Your task to perform on an android device: change notification settings in the gmail app Image 0: 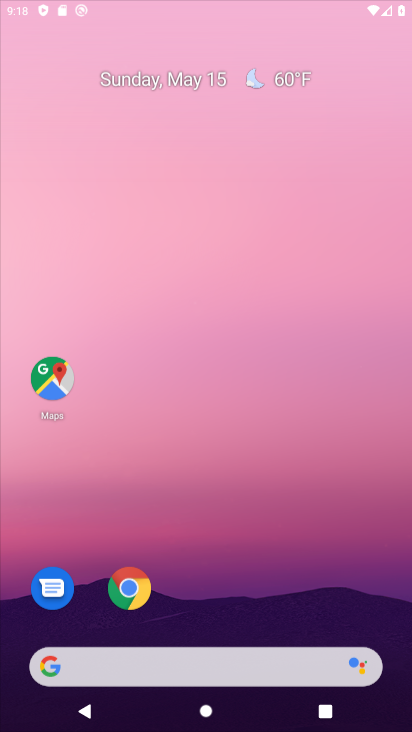
Step 0: drag from (207, 595) to (302, 29)
Your task to perform on an android device: change notification settings in the gmail app Image 1: 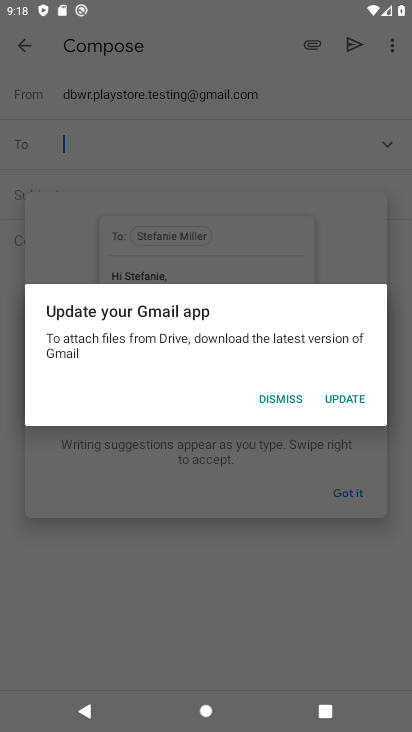
Step 1: press home button
Your task to perform on an android device: change notification settings in the gmail app Image 2: 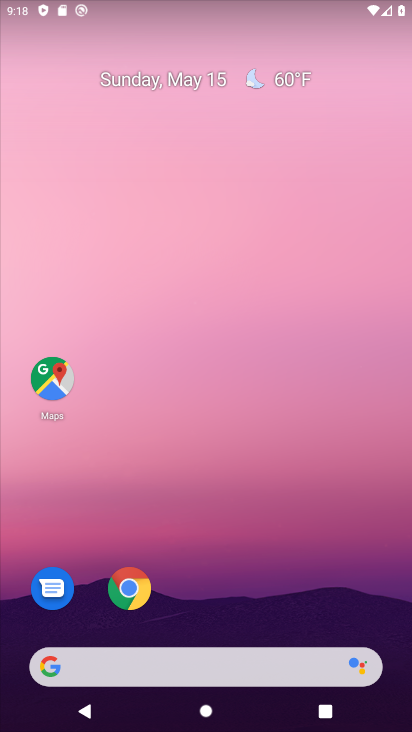
Step 2: drag from (233, 498) to (256, 16)
Your task to perform on an android device: change notification settings in the gmail app Image 3: 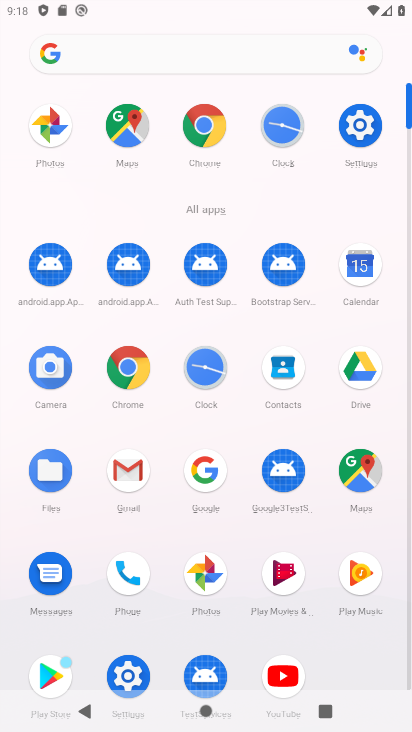
Step 3: click (127, 475)
Your task to perform on an android device: change notification settings in the gmail app Image 4: 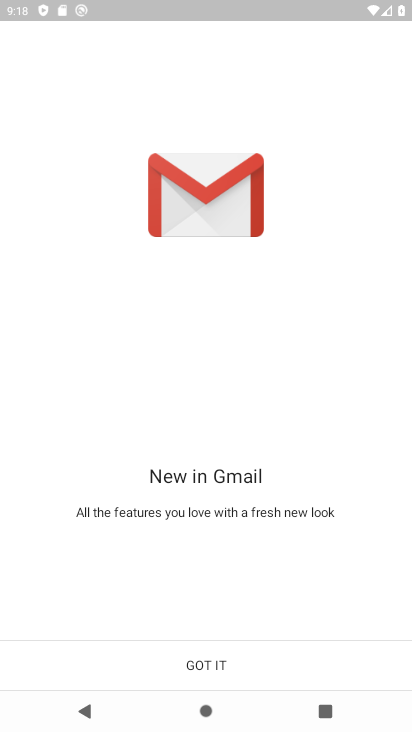
Step 4: click (232, 669)
Your task to perform on an android device: change notification settings in the gmail app Image 5: 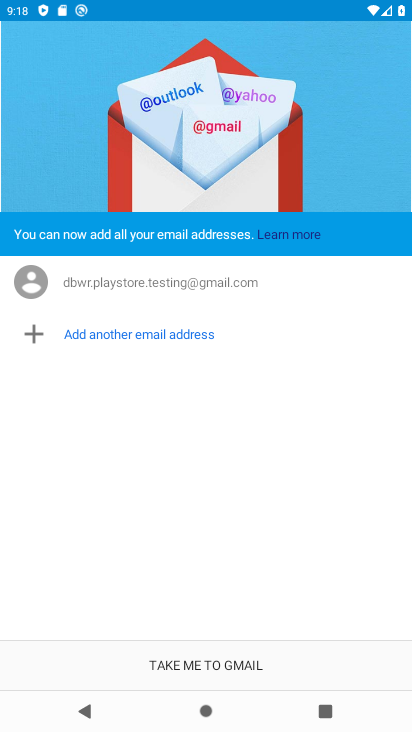
Step 5: click (233, 668)
Your task to perform on an android device: change notification settings in the gmail app Image 6: 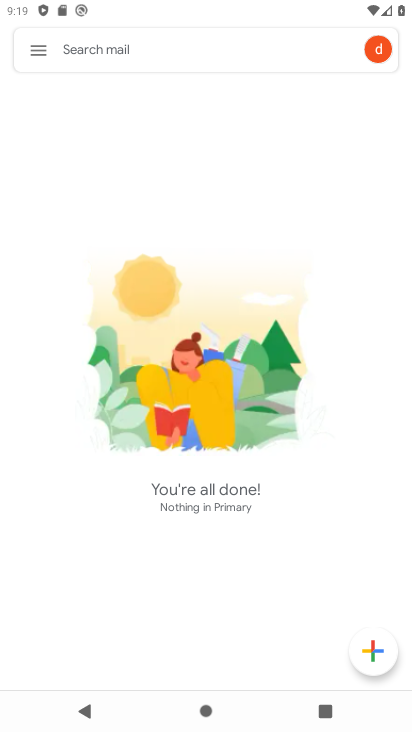
Step 6: click (26, 50)
Your task to perform on an android device: change notification settings in the gmail app Image 7: 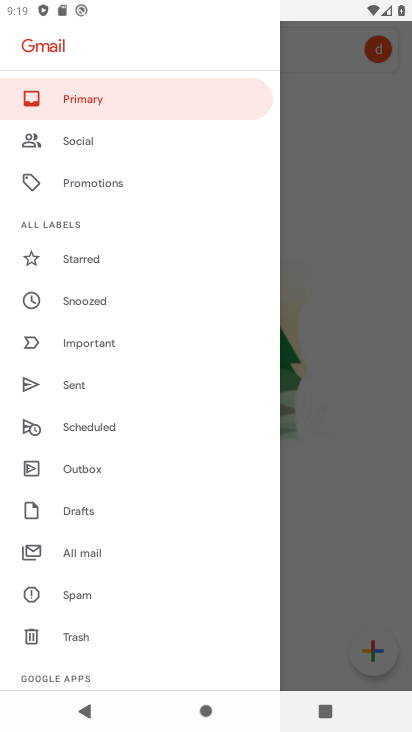
Step 7: drag from (132, 595) to (197, 200)
Your task to perform on an android device: change notification settings in the gmail app Image 8: 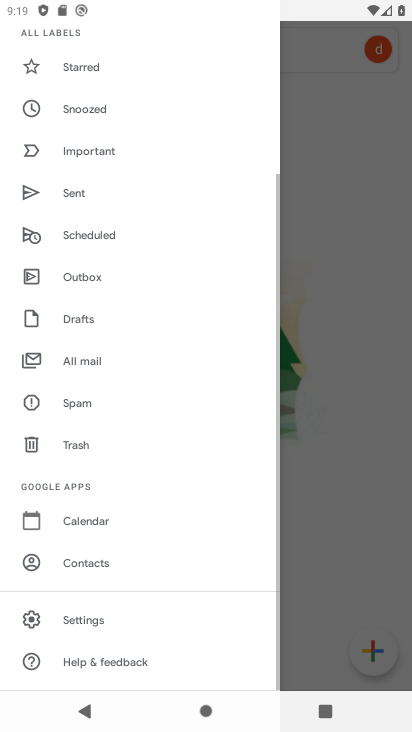
Step 8: click (89, 622)
Your task to perform on an android device: change notification settings in the gmail app Image 9: 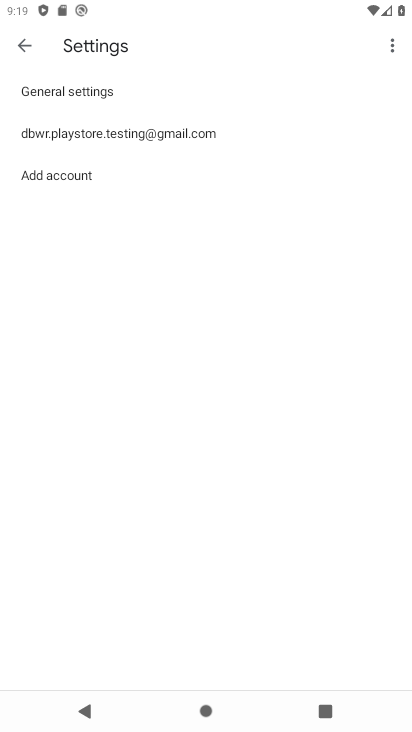
Step 9: click (98, 95)
Your task to perform on an android device: change notification settings in the gmail app Image 10: 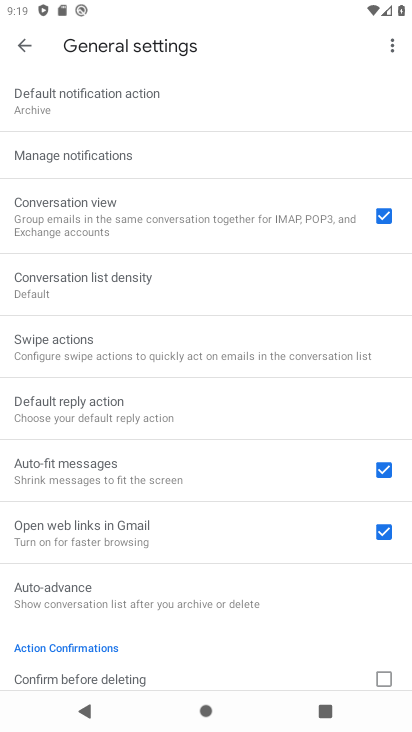
Step 10: click (109, 148)
Your task to perform on an android device: change notification settings in the gmail app Image 11: 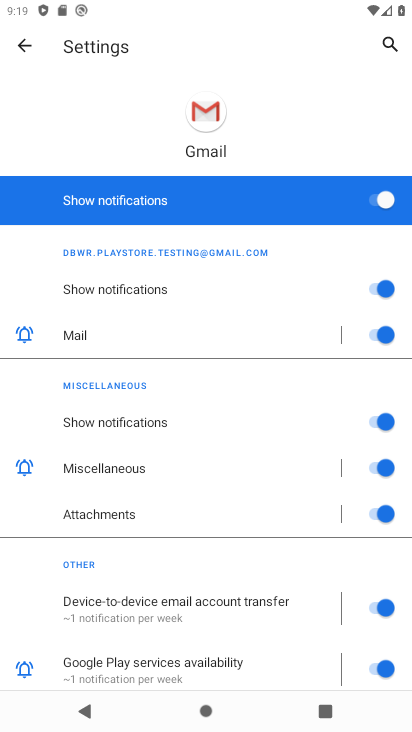
Step 11: click (353, 192)
Your task to perform on an android device: change notification settings in the gmail app Image 12: 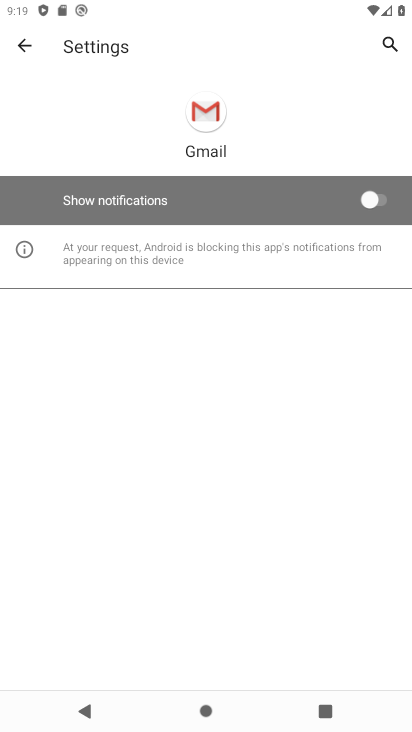
Step 12: task complete